Your task to perform on an android device: turn off location Image 0: 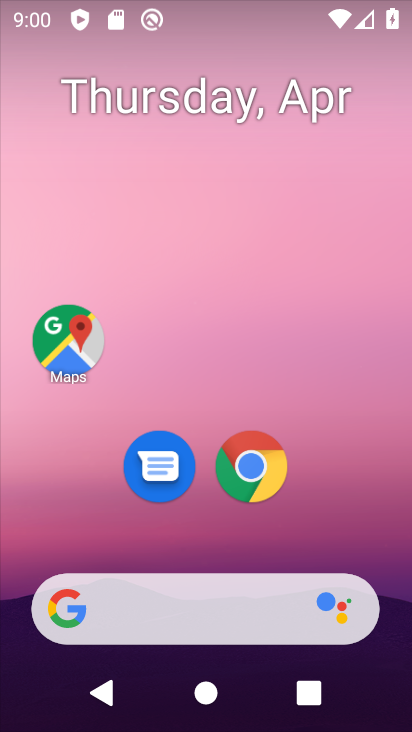
Step 0: drag from (315, 502) to (352, 119)
Your task to perform on an android device: turn off location Image 1: 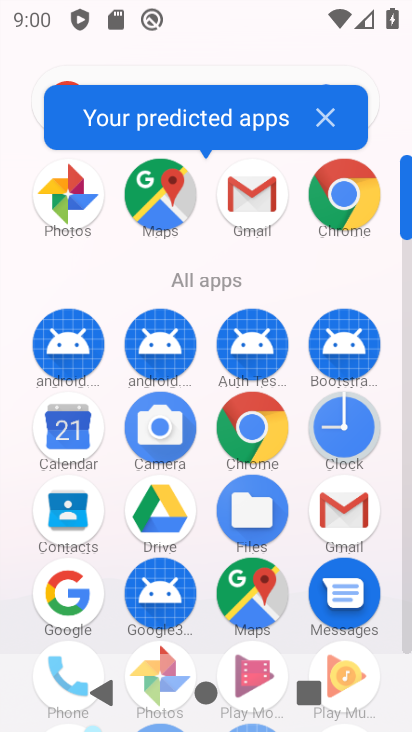
Step 1: drag from (294, 469) to (342, 173)
Your task to perform on an android device: turn off location Image 2: 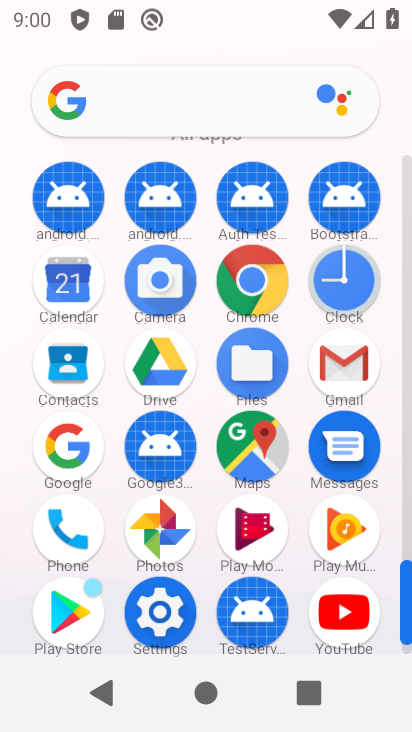
Step 2: click (163, 590)
Your task to perform on an android device: turn off location Image 3: 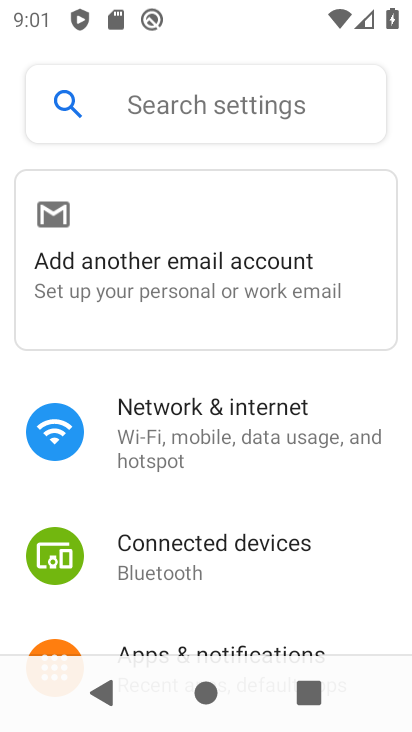
Step 3: drag from (269, 601) to (322, 167)
Your task to perform on an android device: turn off location Image 4: 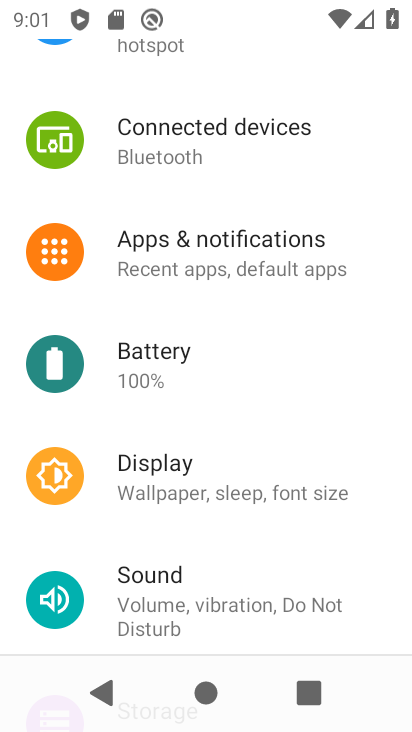
Step 4: drag from (259, 540) to (313, 110)
Your task to perform on an android device: turn off location Image 5: 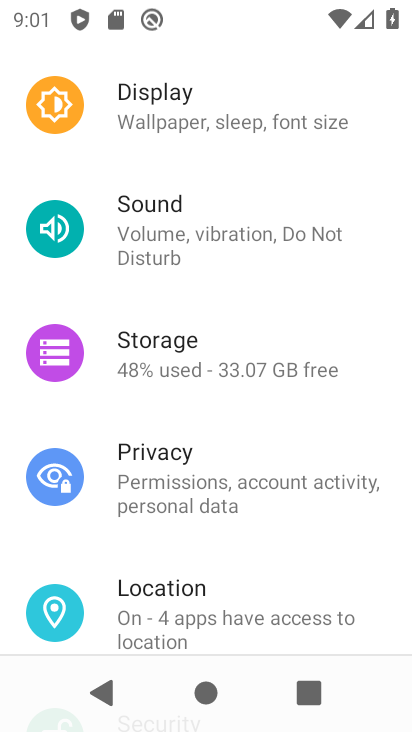
Step 5: click (219, 602)
Your task to perform on an android device: turn off location Image 6: 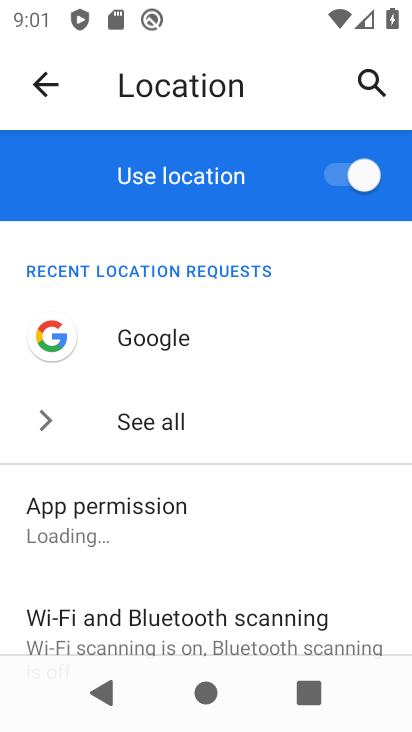
Step 6: click (348, 174)
Your task to perform on an android device: turn off location Image 7: 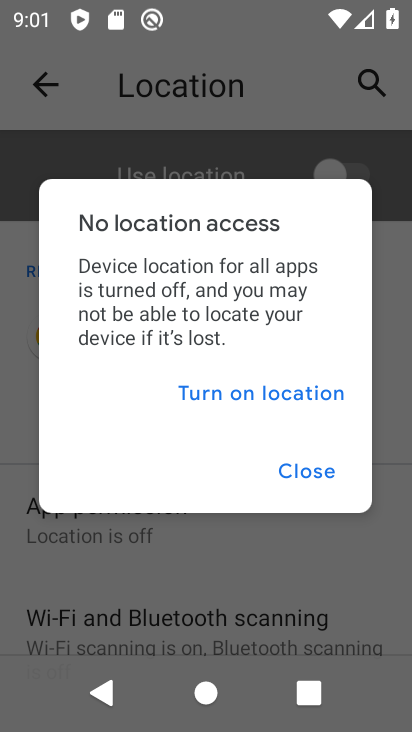
Step 7: task complete